Your task to perform on an android device: Is it going to rain this weekend? Image 0: 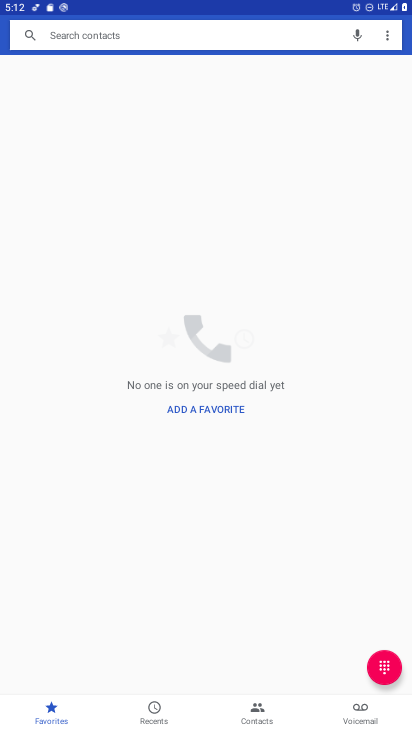
Step 0: press home button
Your task to perform on an android device: Is it going to rain this weekend? Image 1: 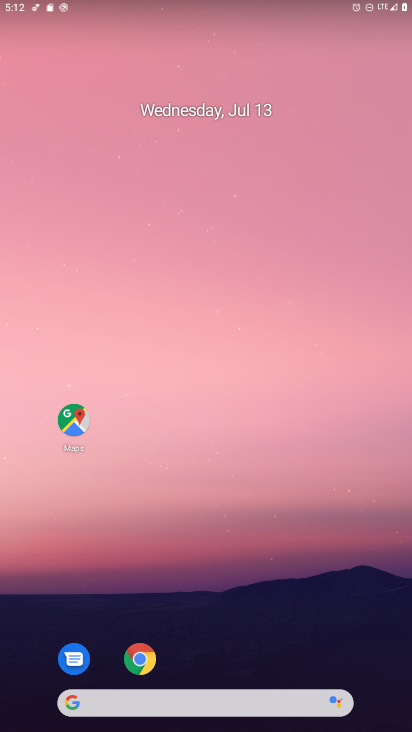
Step 1: drag from (298, 489) to (249, 85)
Your task to perform on an android device: Is it going to rain this weekend? Image 2: 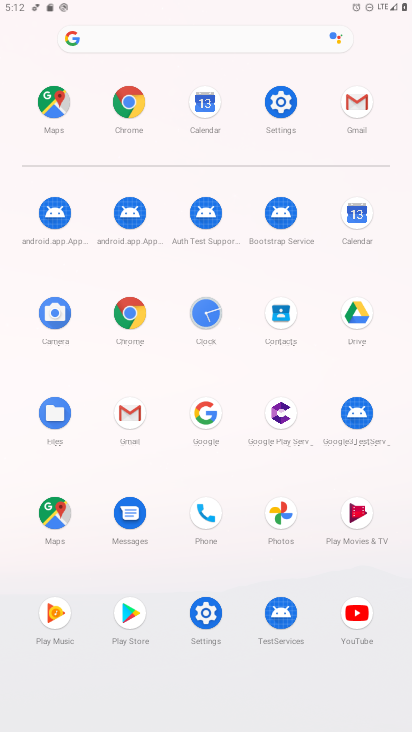
Step 2: click (128, 107)
Your task to perform on an android device: Is it going to rain this weekend? Image 3: 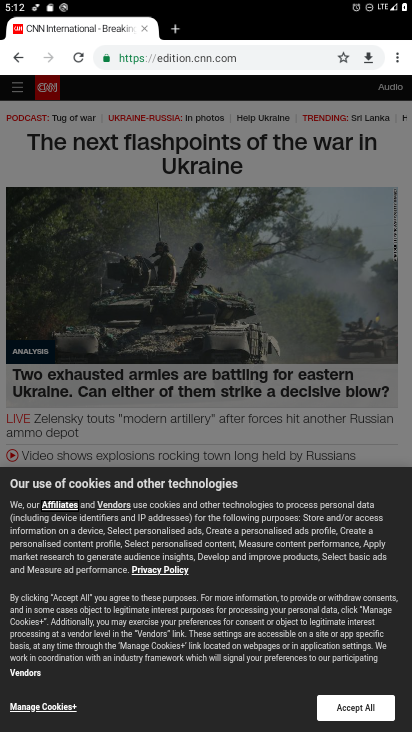
Step 3: click (186, 56)
Your task to perform on an android device: Is it going to rain this weekend? Image 4: 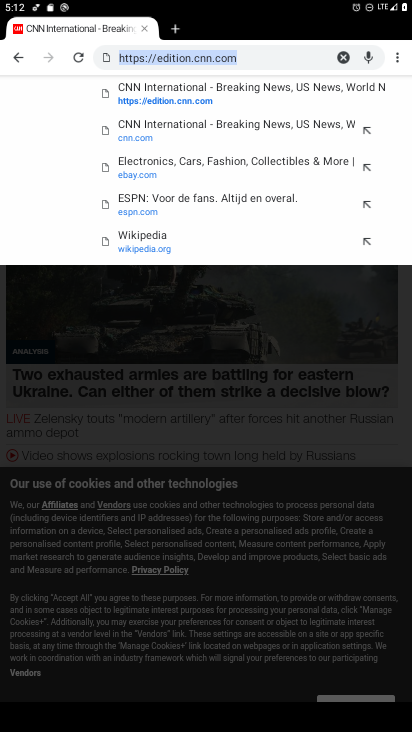
Step 4: type "weather"
Your task to perform on an android device: Is it going to rain this weekend? Image 5: 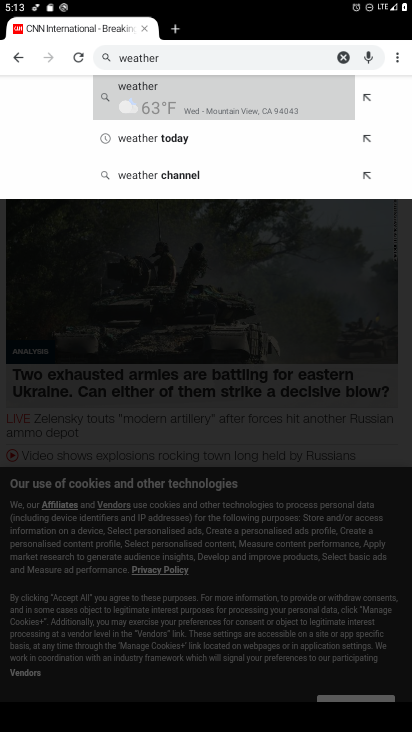
Step 5: click (194, 82)
Your task to perform on an android device: Is it going to rain this weekend? Image 6: 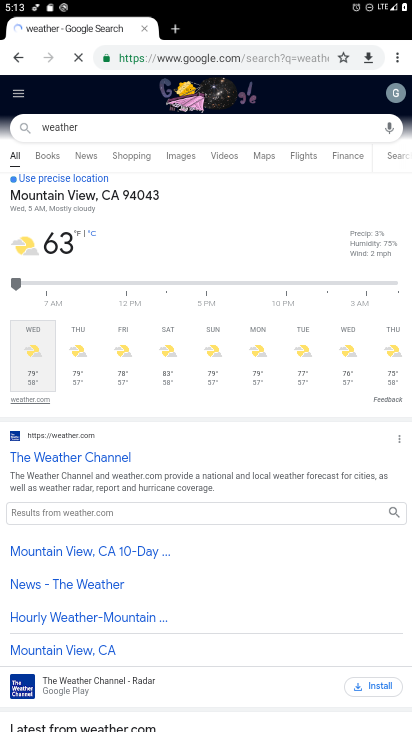
Step 6: click (172, 350)
Your task to perform on an android device: Is it going to rain this weekend? Image 7: 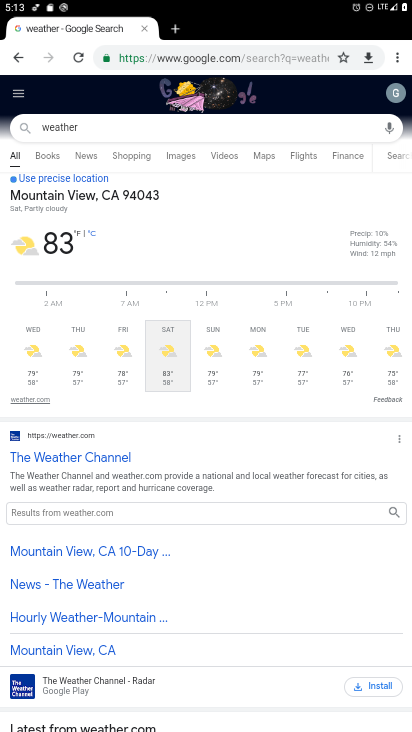
Step 7: task complete